Your task to perform on an android device: Turn on the flashlight Image 0: 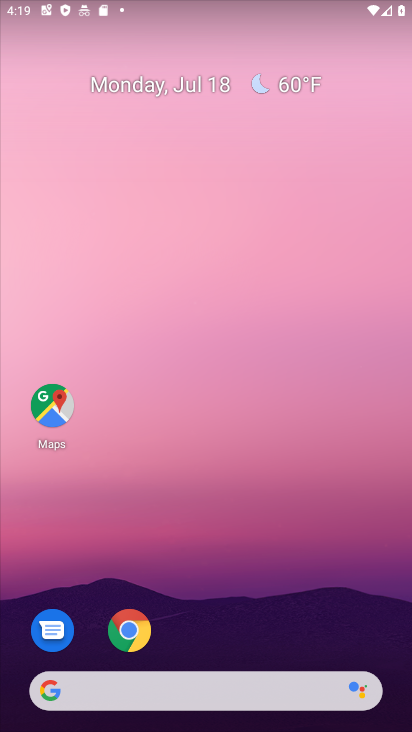
Step 0: drag from (269, 562) to (219, 193)
Your task to perform on an android device: Turn on the flashlight Image 1: 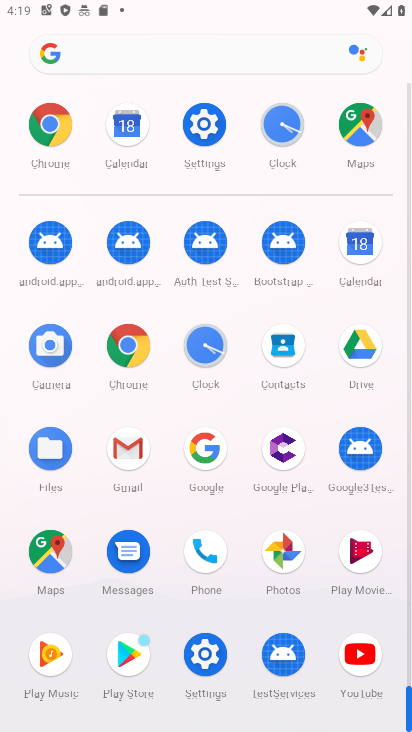
Step 1: task complete